Your task to perform on an android device: Find coffee shops on Maps Image 0: 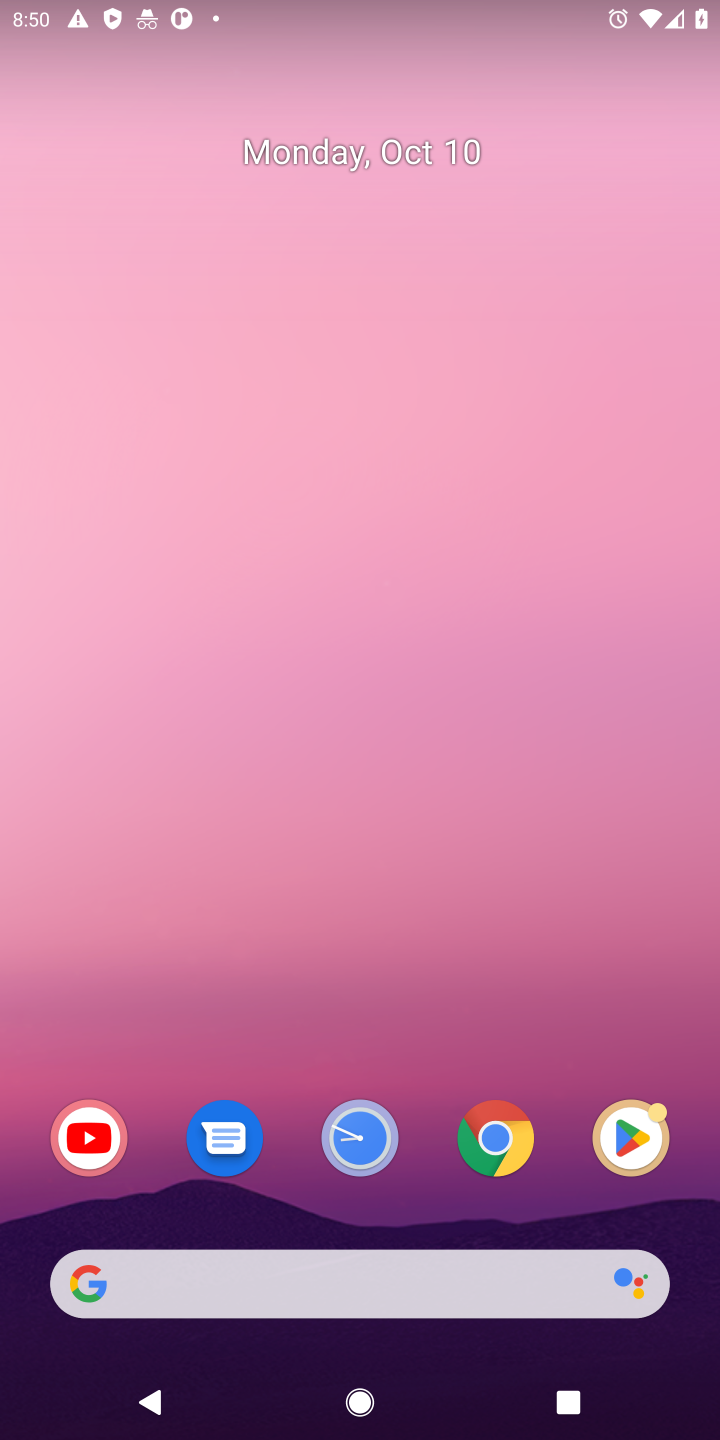
Step 0: drag from (272, 1026) to (308, 103)
Your task to perform on an android device: Find coffee shops on Maps Image 1: 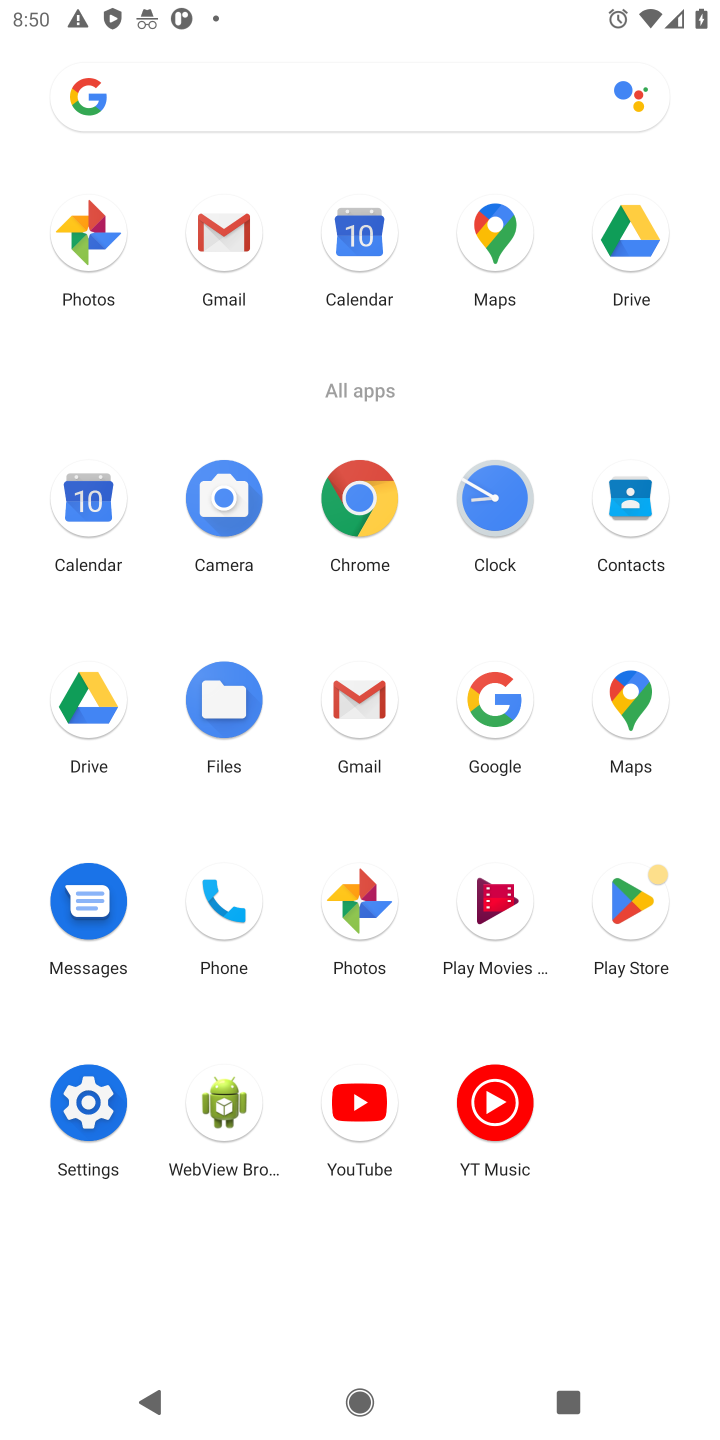
Step 1: click (496, 220)
Your task to perform on an android device: Find coffee shops on Maps Image 2: 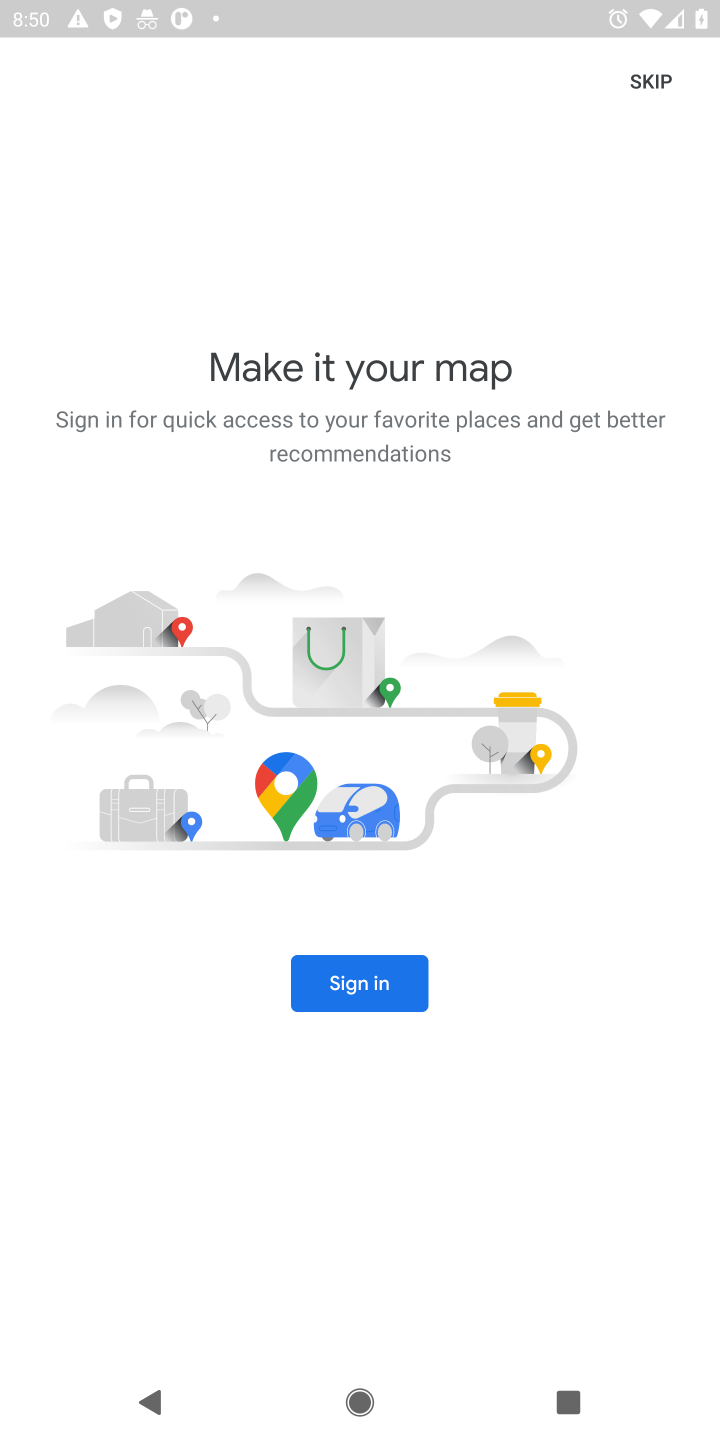
Step 2: click (650, 64)
Your task to perform on an android device: Find coffee shops on Maps Image 3: 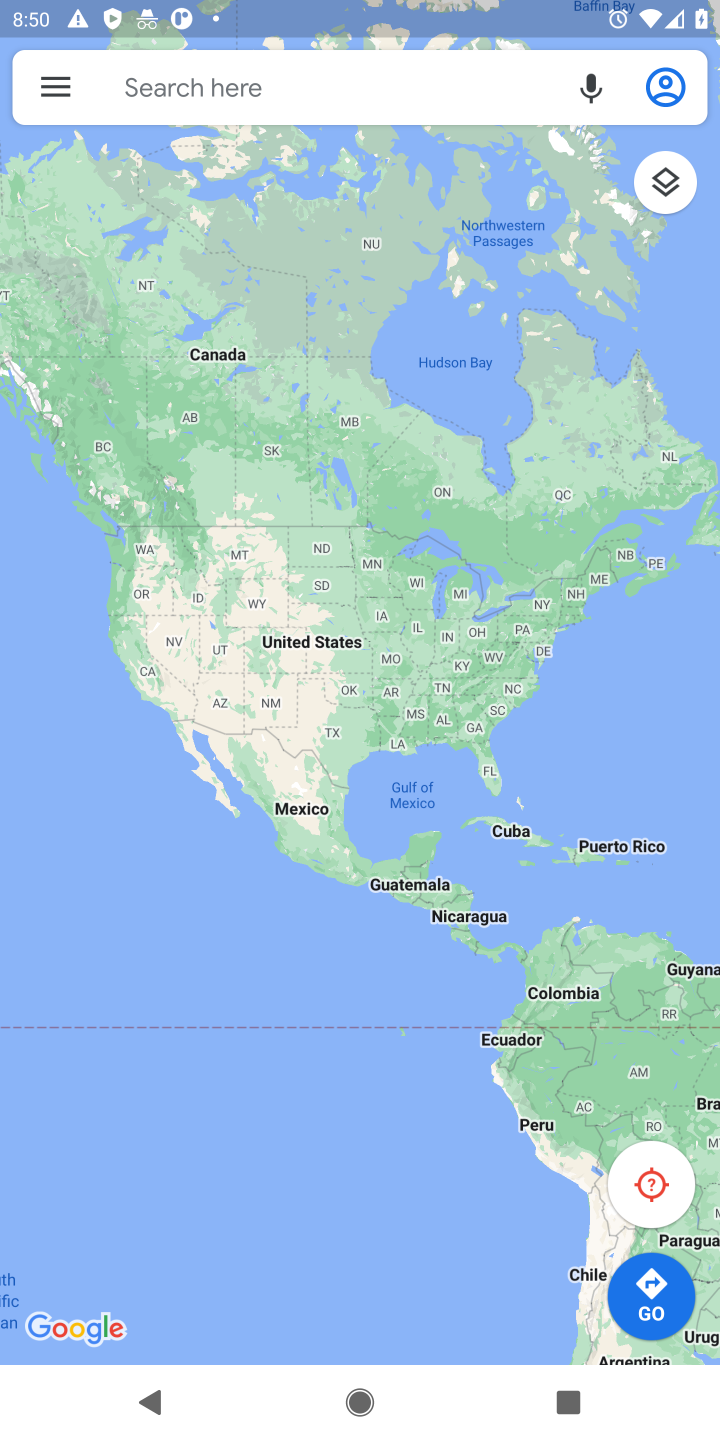
Step 3: click (427, 73)
Your task to perform on an android device: Find coffee shops on Maps Image 4: 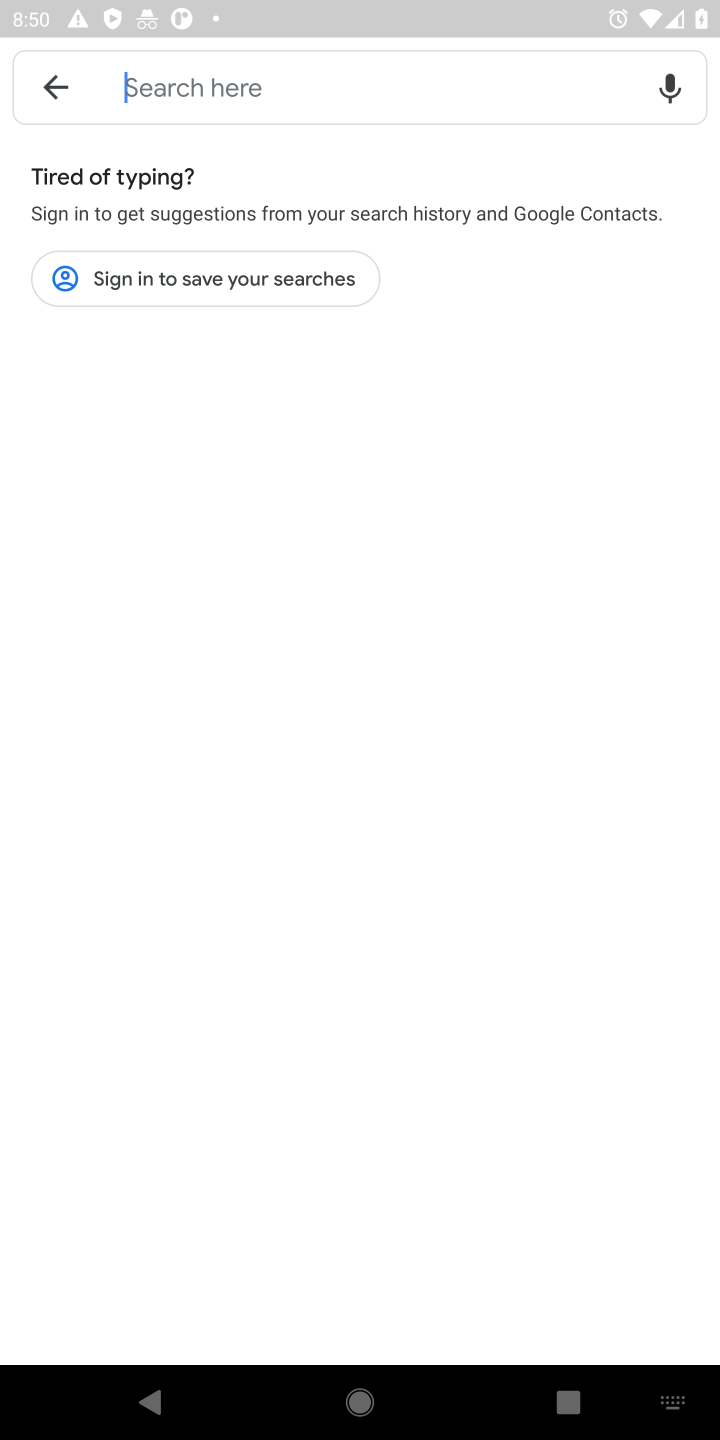
Step 4: type "coffee shops"
Your task to perform on an android device: Find coffee shops on Maps Image 5: 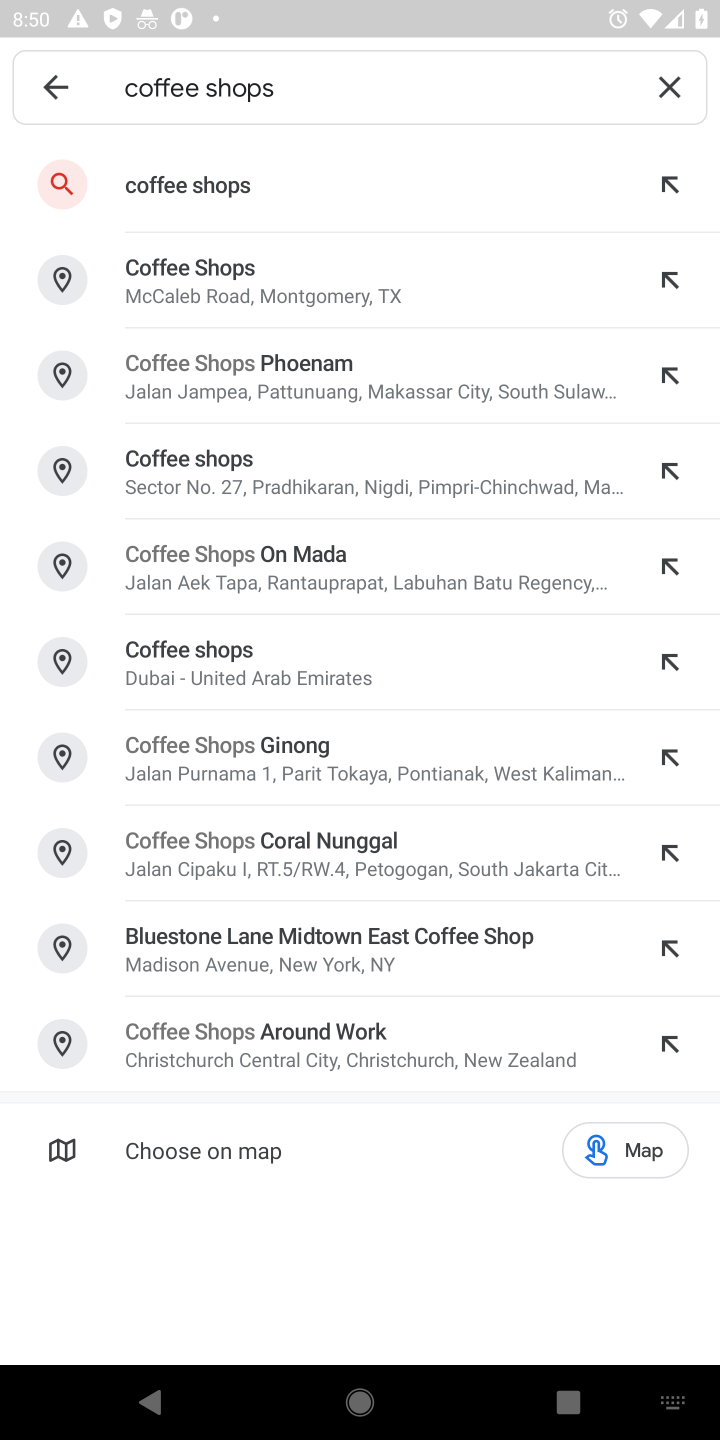
Step 5: click (182, 187)
Your task to perform on an android device: Find coffee shops on Maps Image 6: 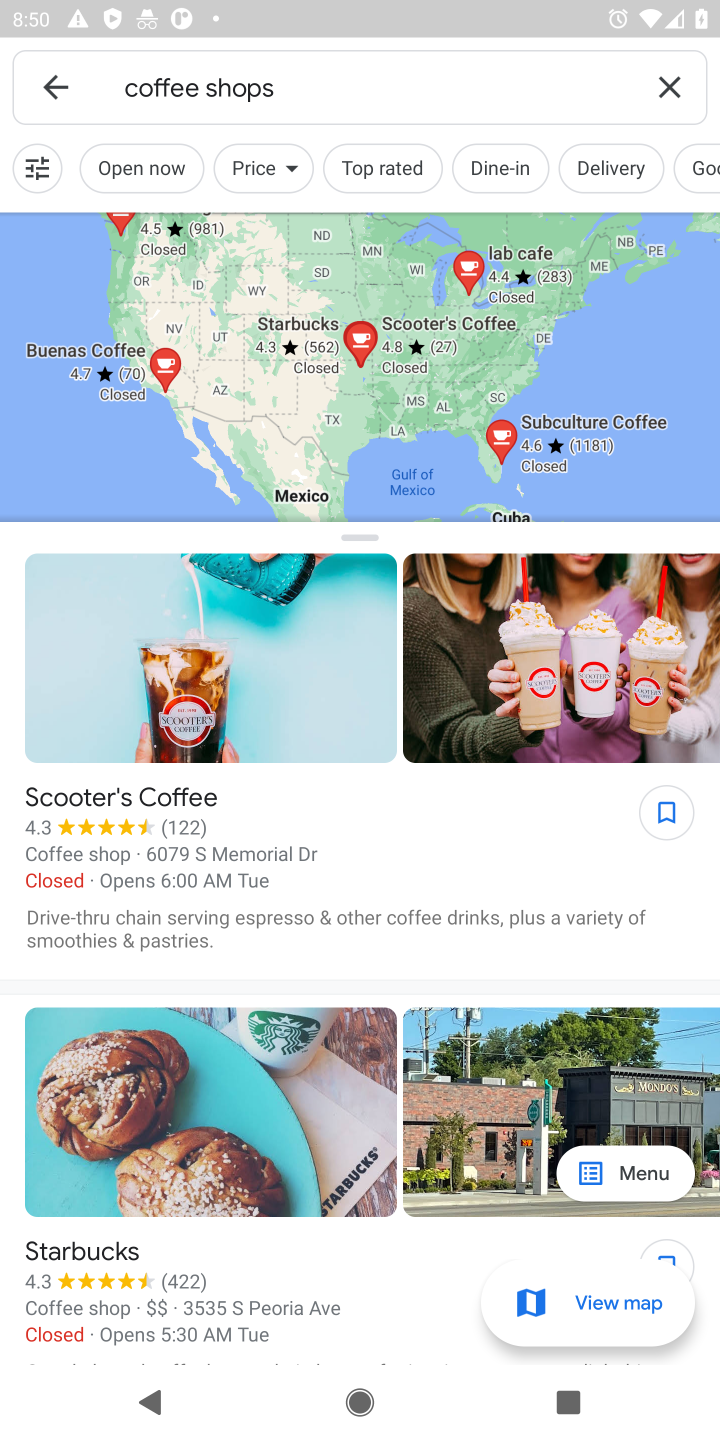
Step 6: task complete